Your task to perform on an android device: Open the stopwatch Image 0: 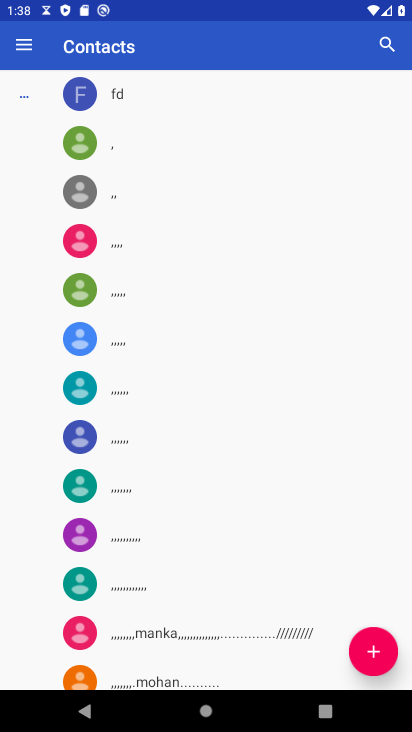
Step 0: press home button
Your task to perform on an android device: Open the stopwatch Image 1: 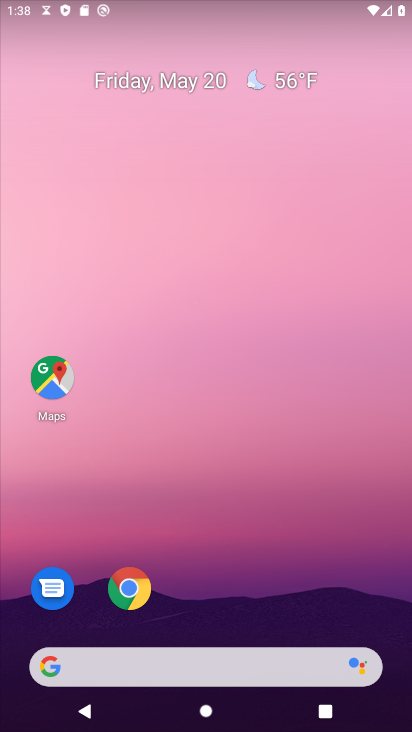
Step 1: drag from (4, 710) to (240, 116)
Your task to perform on an android device: Open the stopwatch Image 2: 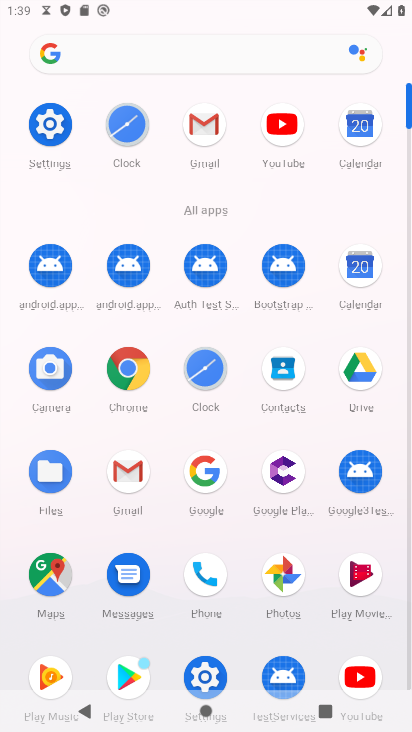
Step 2: click (196, 366)
Your task to perform on an android device: Open the stopwatch Image 3: 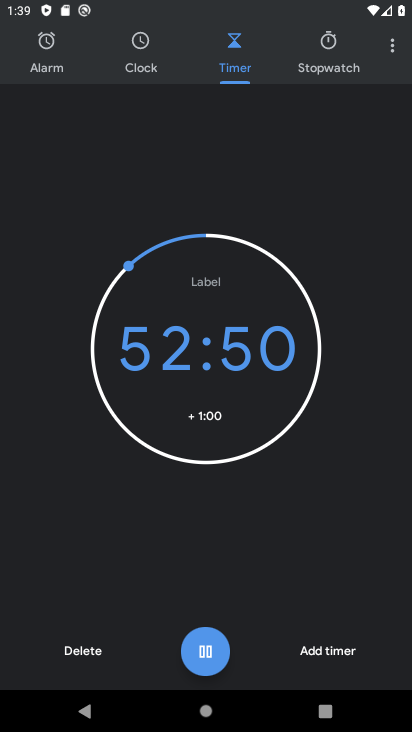
Step 3: click (309, 53)
Your task to perform on an android device: Open the stopwatch Image 4: 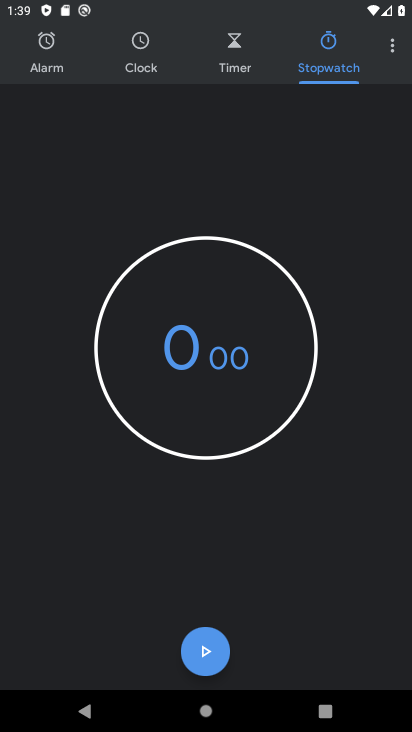
Step 4: click (200, 655)
Your task to perform on an android device: Open the stopwatch Image 5: 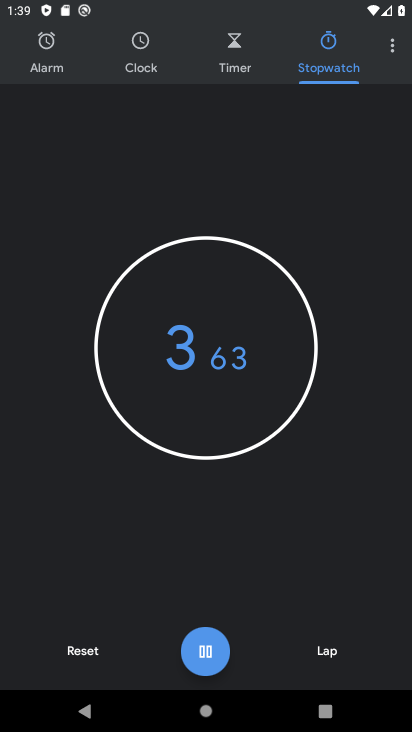
Step 5: task complete